Your task to perform on an android device: Open Google Chrome Image 0: 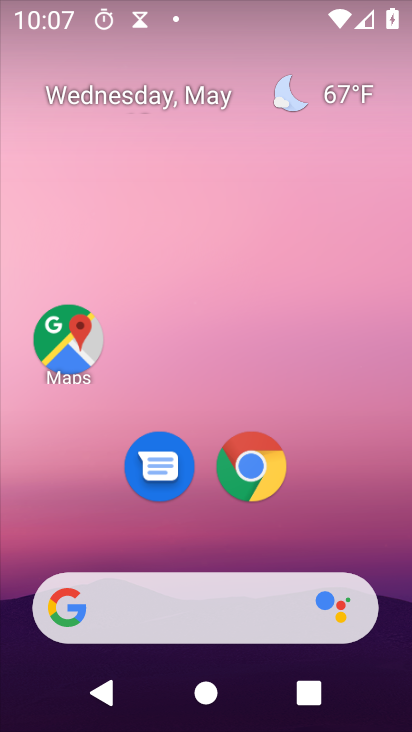
Step 0: click (259, 483)
Your task to perform on an android device: Open Google Chrome Image 1: 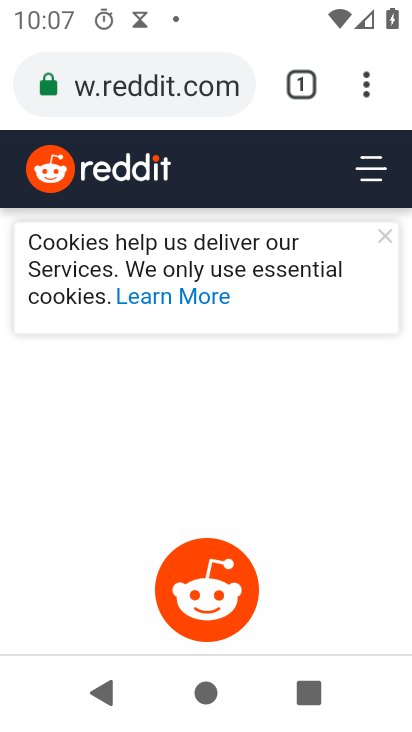
Step 1: task complete